Your task to perform on an android device: Open the Play Movies app and select the watchlist tab. Image 0: 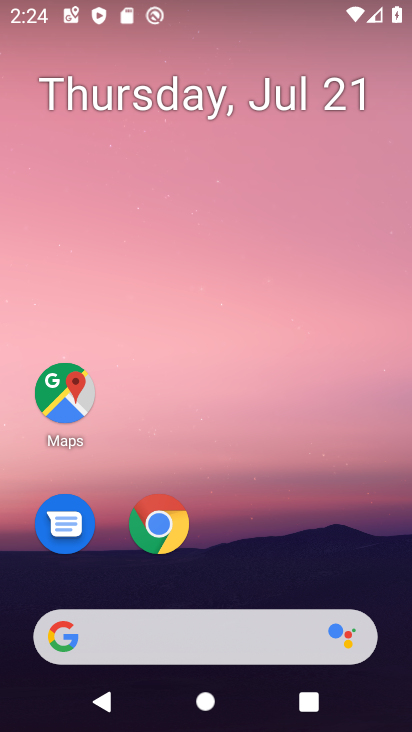
Step 0: drag from (305, 576) to (311, 1)
Your task to perform on an android device: Open the Play Movies app and select the watchlist tab. Image 1: 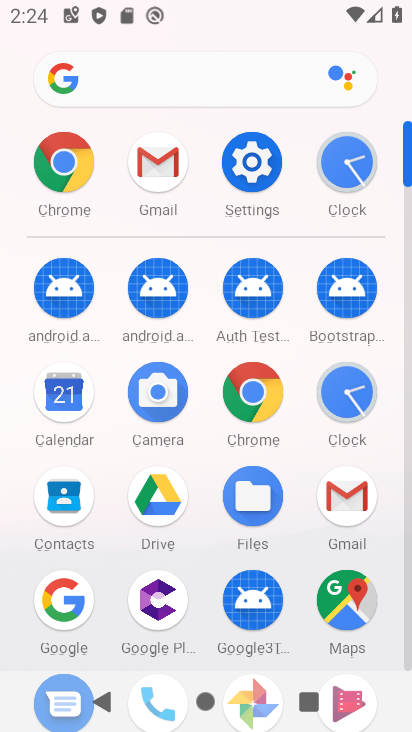
Step 1: drag from (214, 418) to (218, 205)
Your task to perform on an android device: Open the Play Movies app and select the watchlist tab. Image 2: 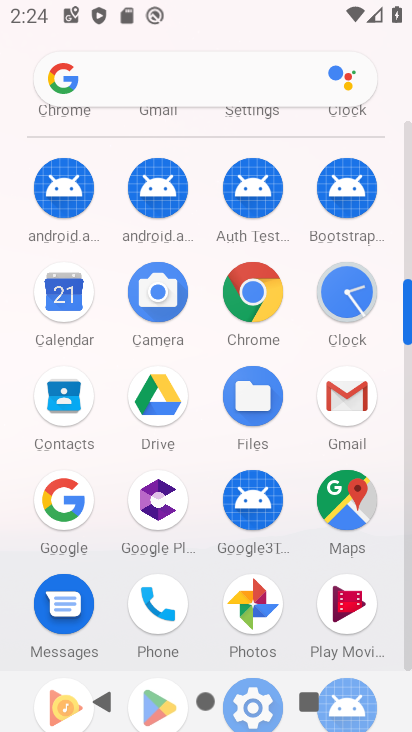
Step 2: click (352, 597)
Your task to perform on an android device: Open the Play Movies app and select the watchlist tab. Image 3: 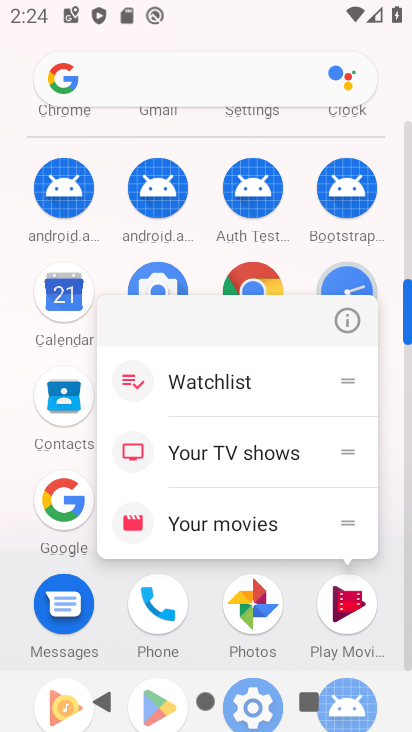
Step 3: click (354, 598)
Your task to perform on an android device: Open the Play Movies app and select the watchlist tab. Image 4: 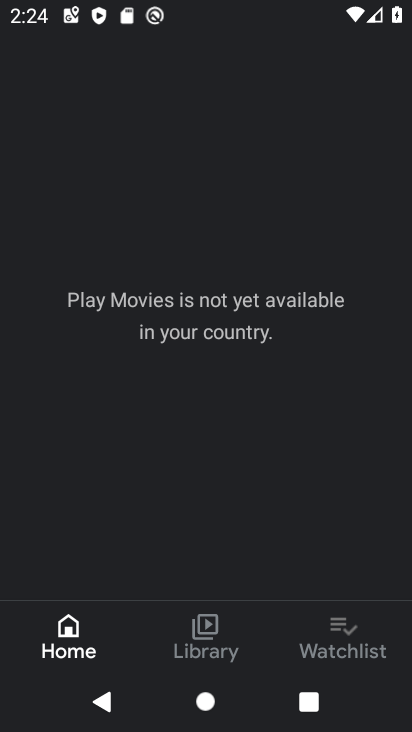
Step 4: click (356, 638)
Your task to perform on an android device: Open the Play Movies app and select the watchlist tab. Image 5: 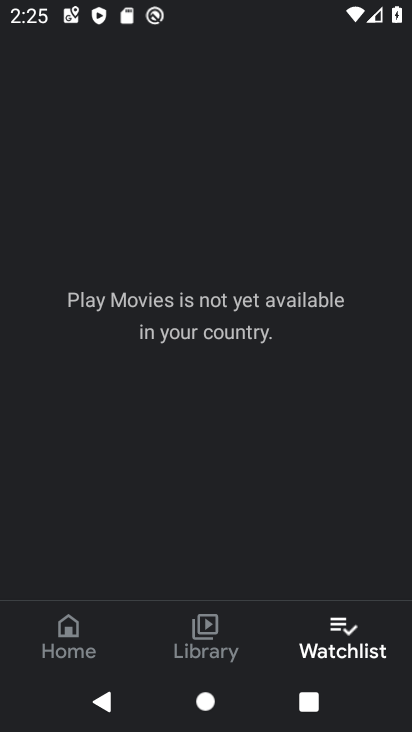
Step 5: task complete